Your task to perform on an android device: Is it going to rain tomorrow? Image 0: 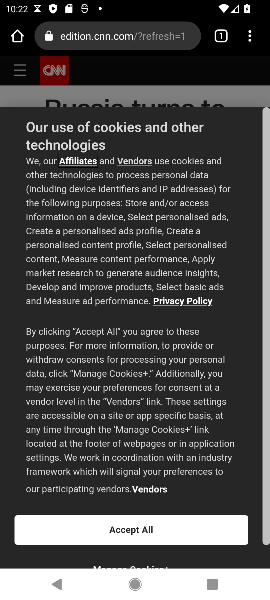
Step 0: press home button
Your task to perform on an android device: Is it going to rain tomorrow? Image 1: 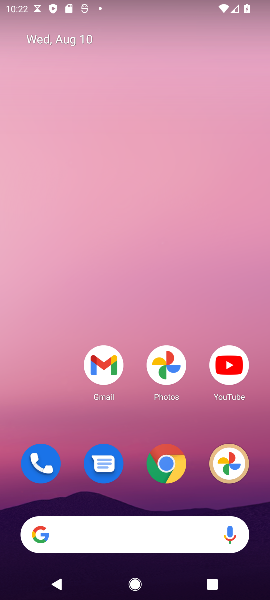
Step 1: click (75, 531)
Your task to perform on an android device: Is it going to rain tomorrow? Image 2: 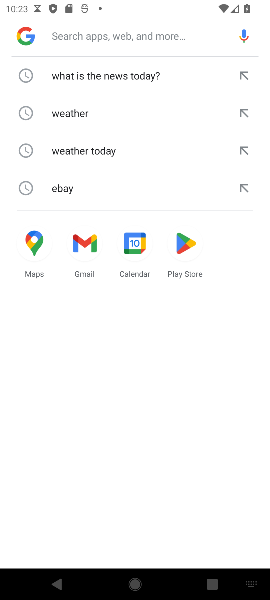
Step 2: type "Is it going to rain tomorrow?"
Your task to perform on an android device: Is it going to rain tomorrow? Image 3: 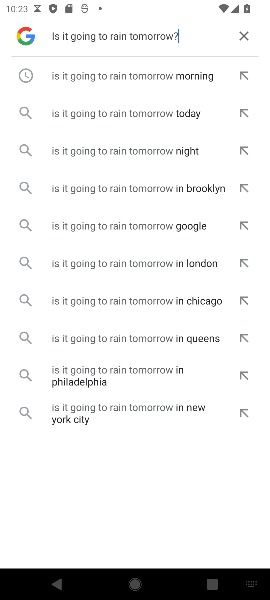
Step 3: type ""
Your task to perform on an android device: Is it going to rain tomorrow? Image 4: 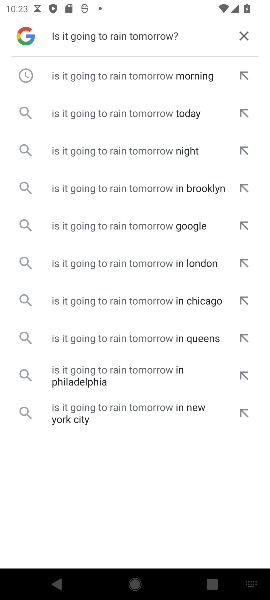
Step 4: type ""
Your task to perform on an android device: Is it going to rain tomorrow? Image 5: 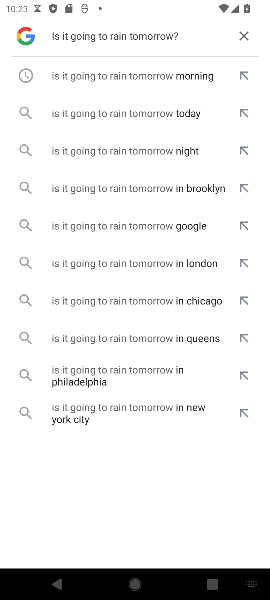
Step 5: task complete